Your task to perform on an android device: Open Chrome and go to the settings page Image 0: 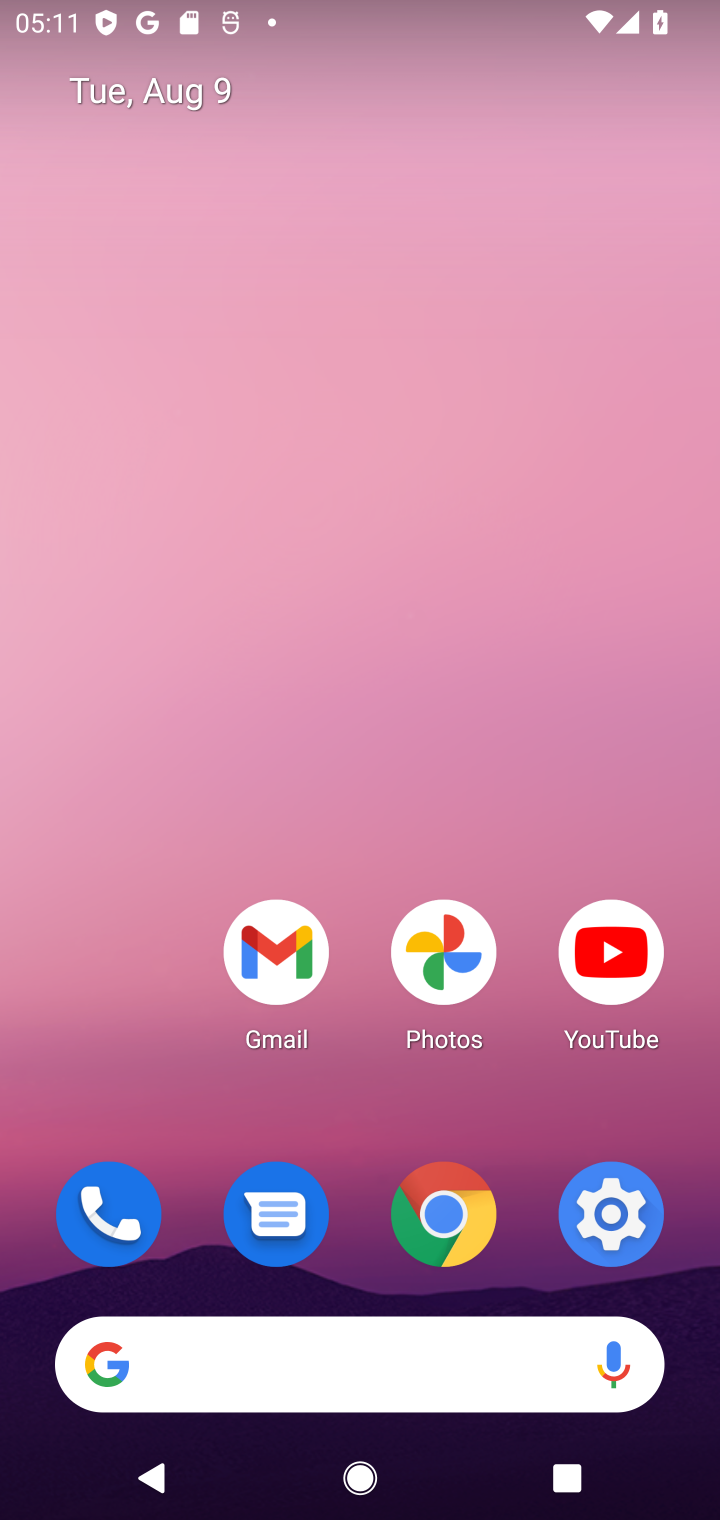
Step 0: press home button
Your task to perform on an android device: Open Chrome and go to the settings page Image 1: 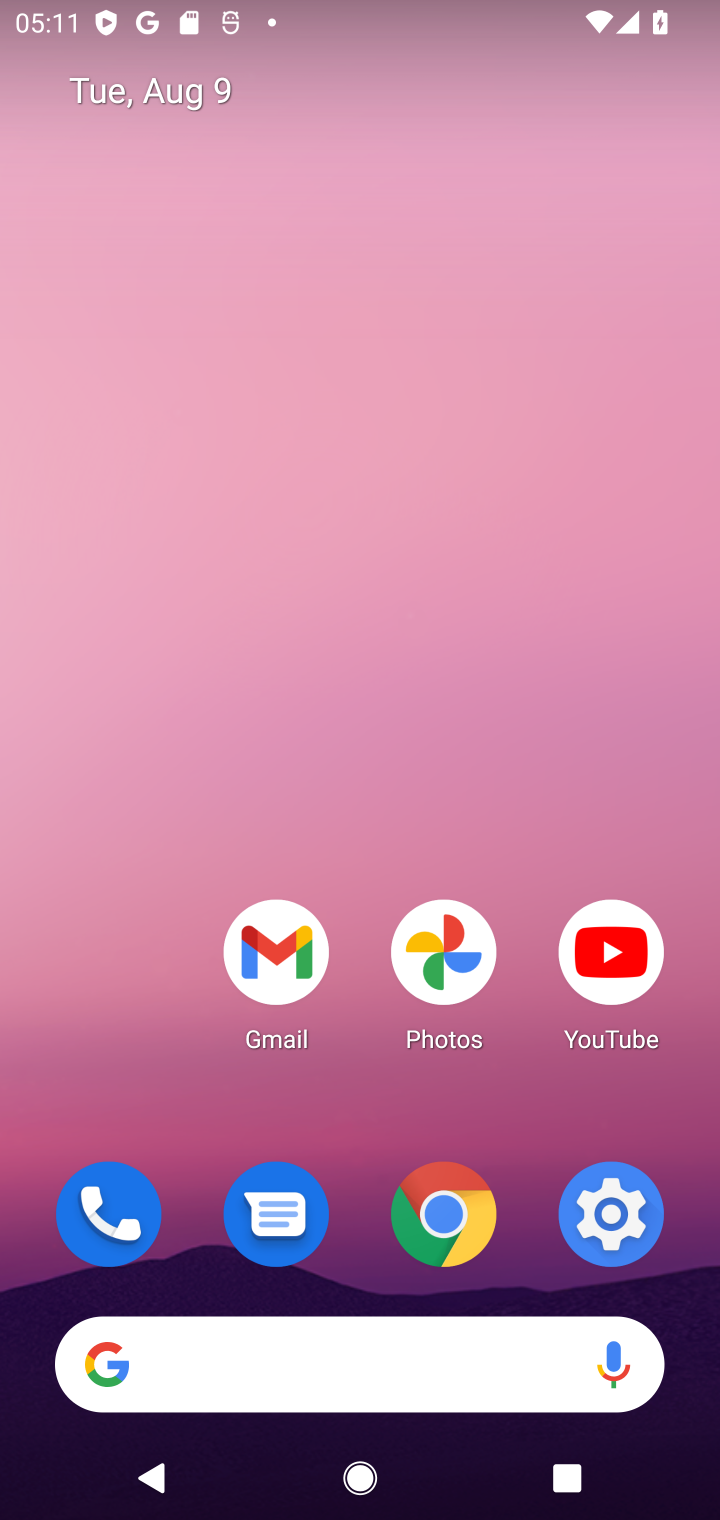
Step 1: drag from (483, 1269) to (579, 302)
Your task to perform on an android device: Open Chrome and go to the settings page Image 2: 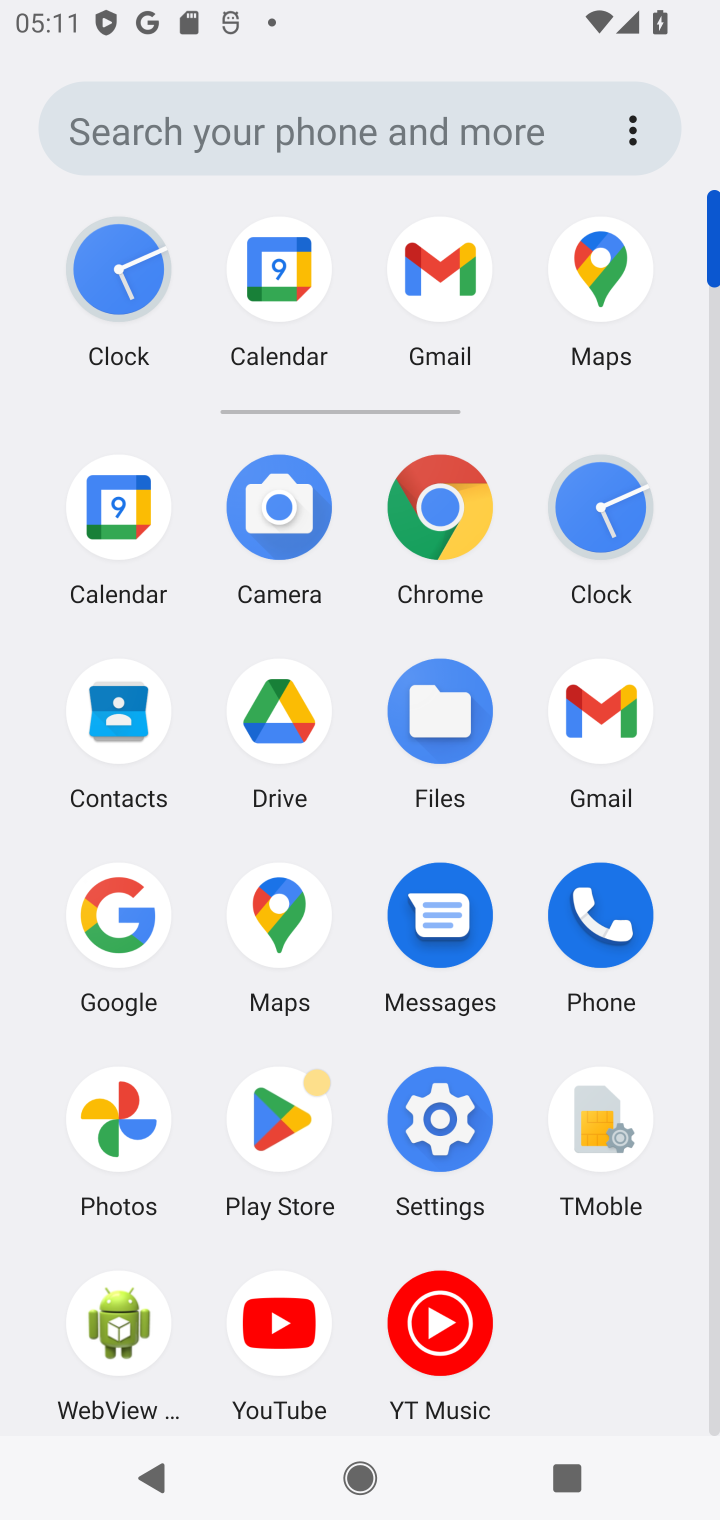
Step 2: click (460, 531)
Your task to perform on an android device: Open Chrome and go to the settings page Image 3: 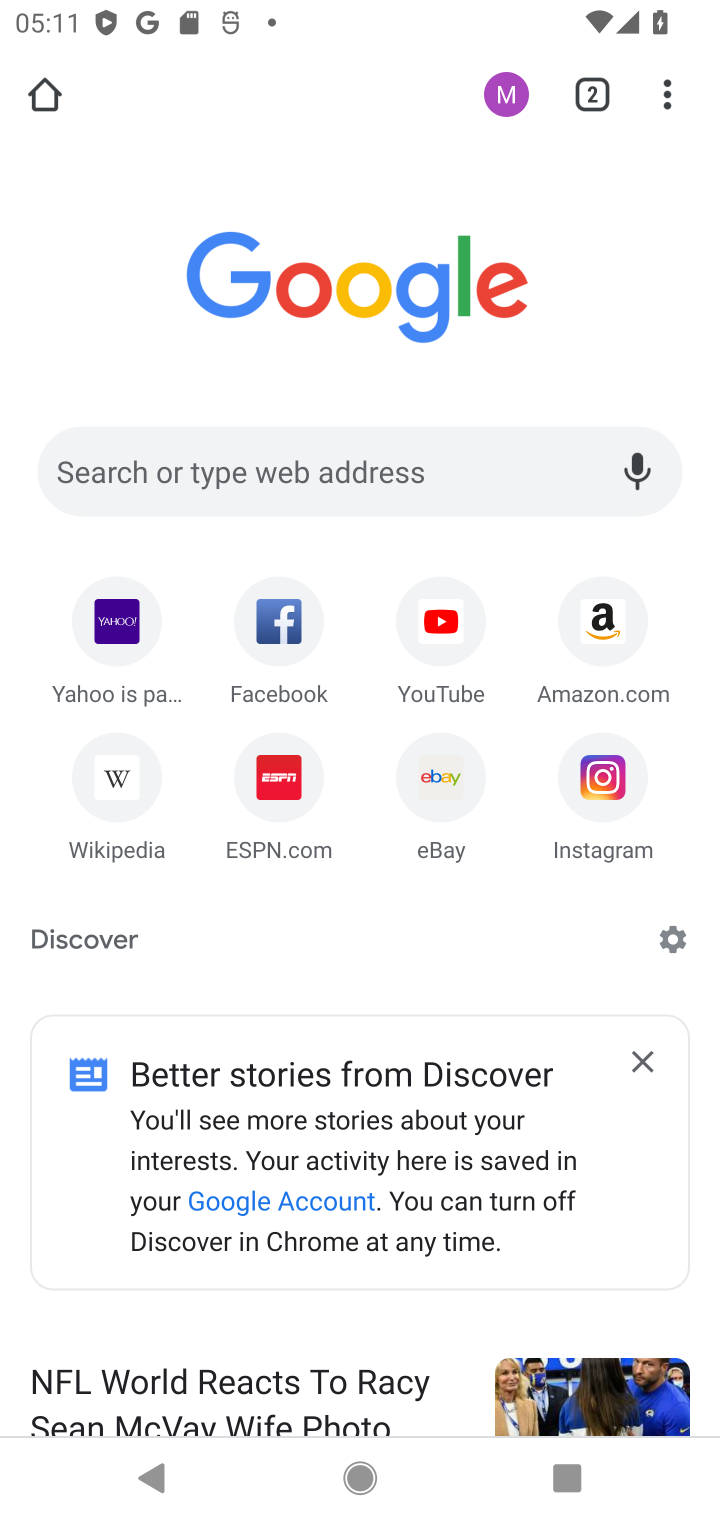
Step 3: click (660, 126)
Your task to perform on an android device: Open Chrome and go to the settings page Image 4: 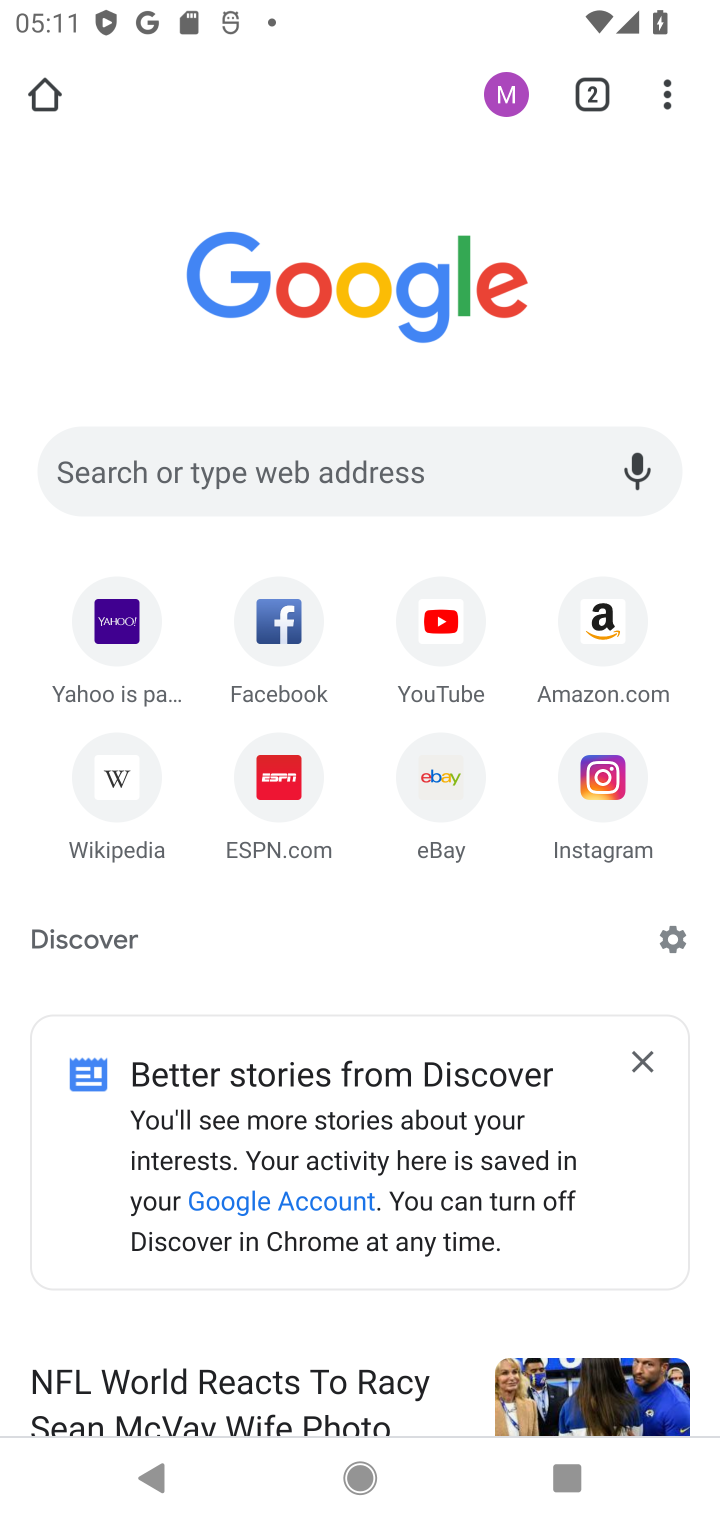
Step 4: click (652, 120)
Your task to perform on an android device: Open Chrome and go to the settings page Image 5: 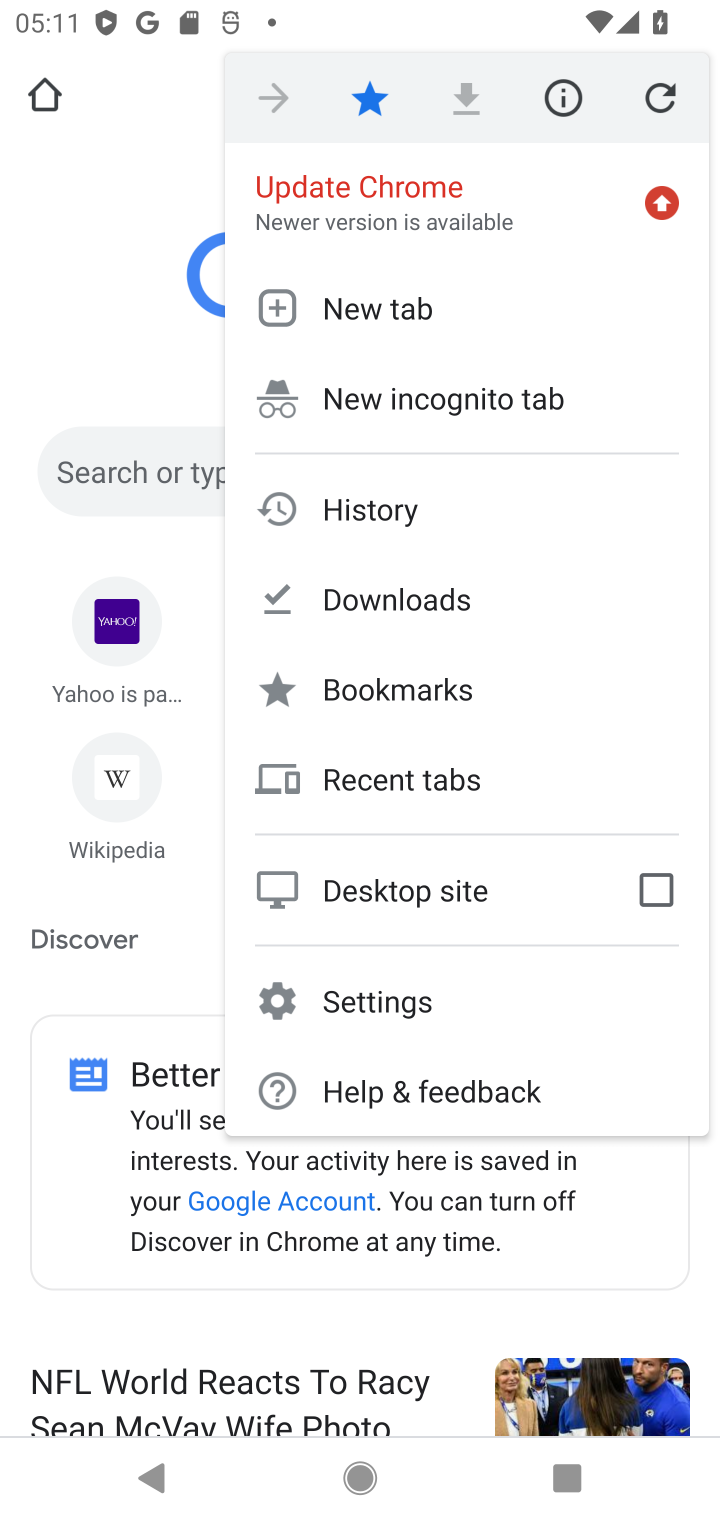
Step 5: click (410, 1015)
Your task to perform on an android device: Open Chrome and go to the settings page Image 6: 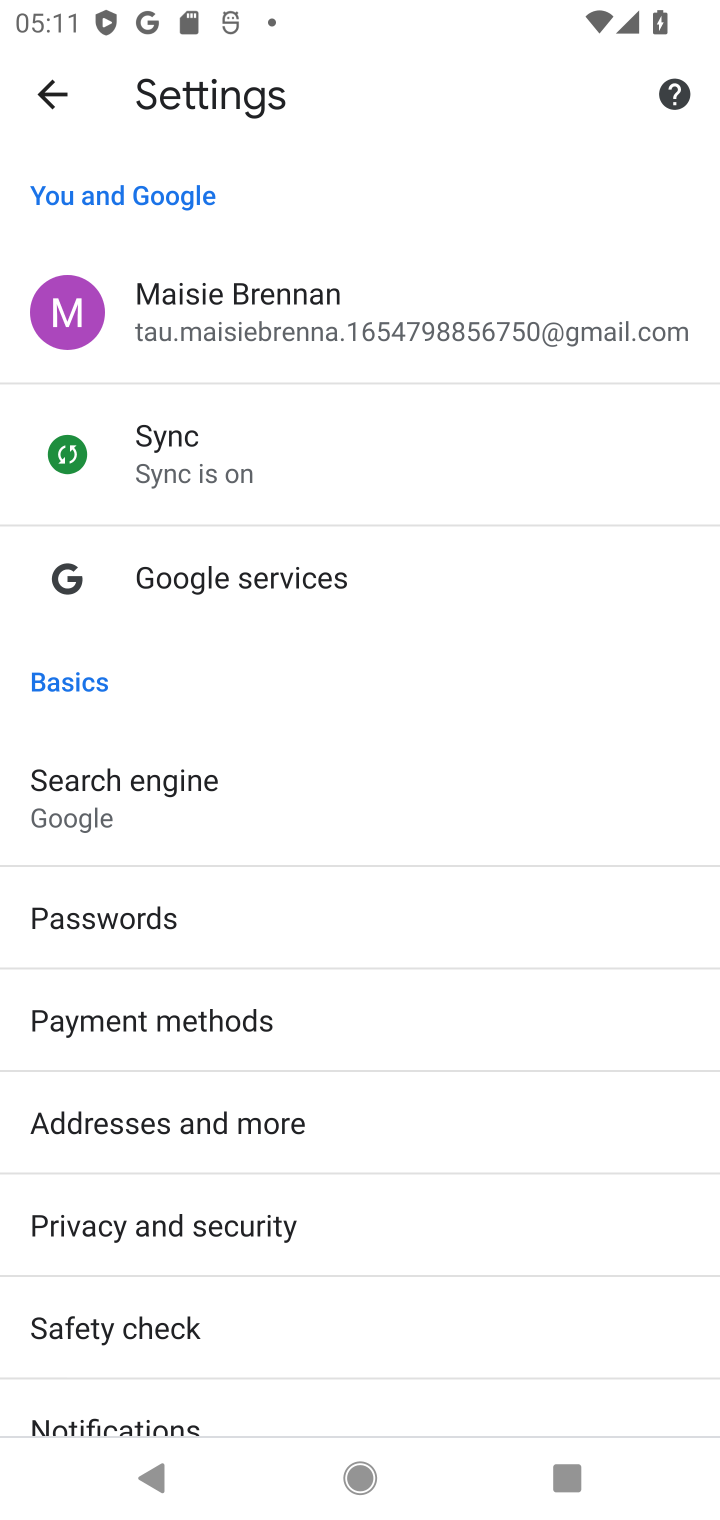
Step 6: task complete